Your task to perform on an android device: Show me productivity apps on the Play Store Image 0: 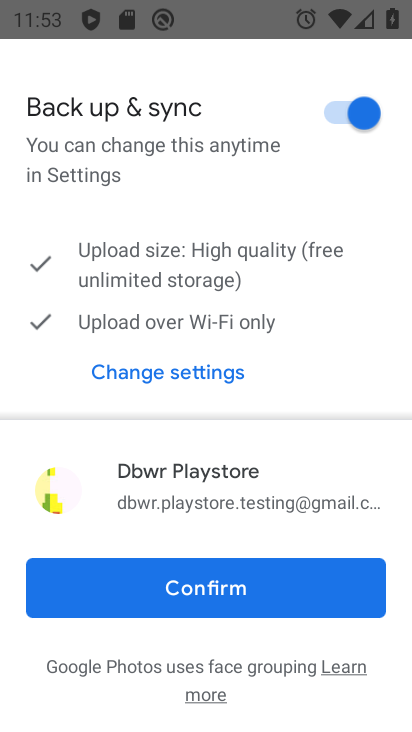
Step 0: press home button
Your task to perform on an android device: Show me productivity apps on the Play Store Image 1: 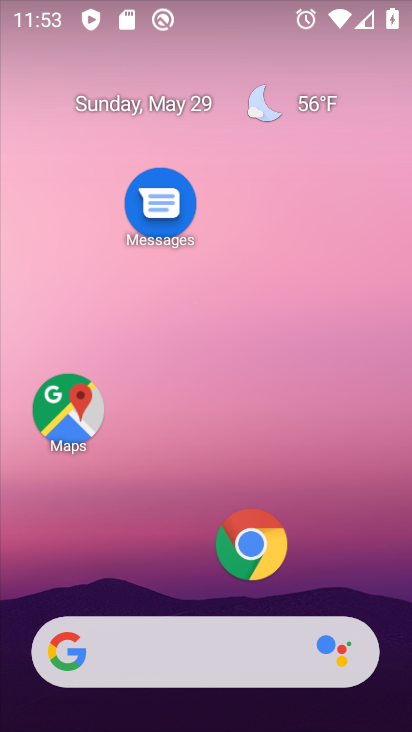
Step 1: drag from (196, 598) to (222, 106)
Your task to perform on an android device: Show me productivity apps on the Play Store Image 2: 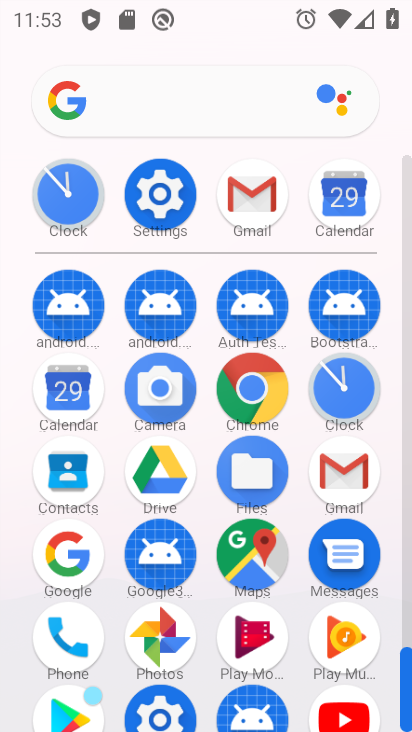
Step 2: drag from (192, 606) to (198, 170)
Your task to perform on an android device: Show me productivity apps on the Play Store Image 3: 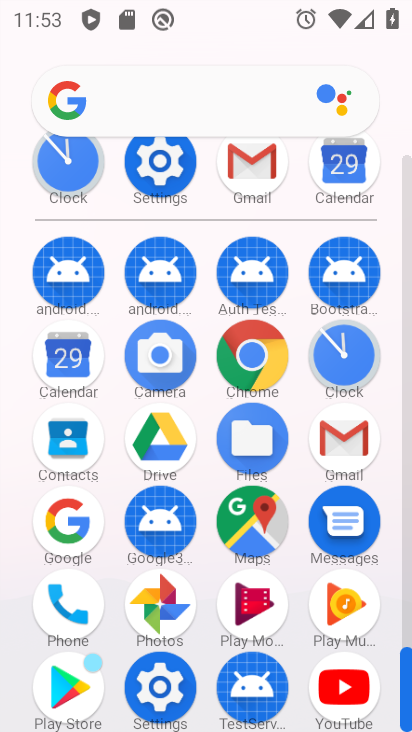
Step 3: click (75, 681)
Your task to perform on an android device: Show me productivity apps on the Play Store Image 4: 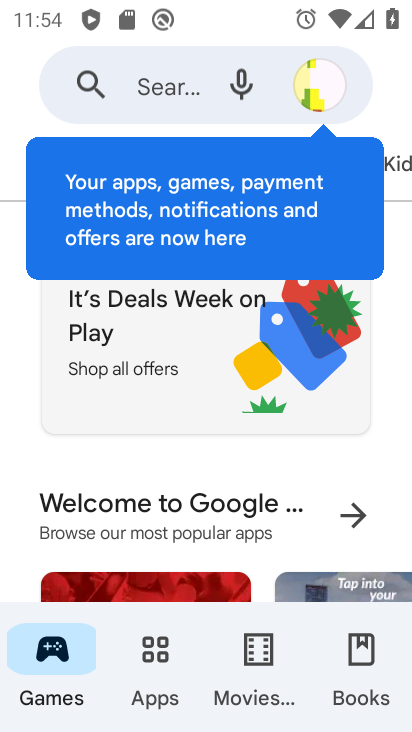
Step 4: click (148, 646)
Your task to perform on an android device: Show me productivity apps on the Play Store Image 5: 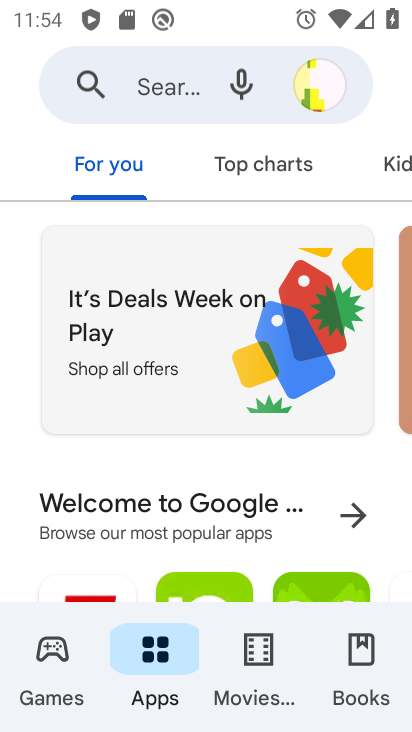
Step 5: click (390, 156)
Your task to perform on an android device: Show me productivity apps on the Play Store Image 6: 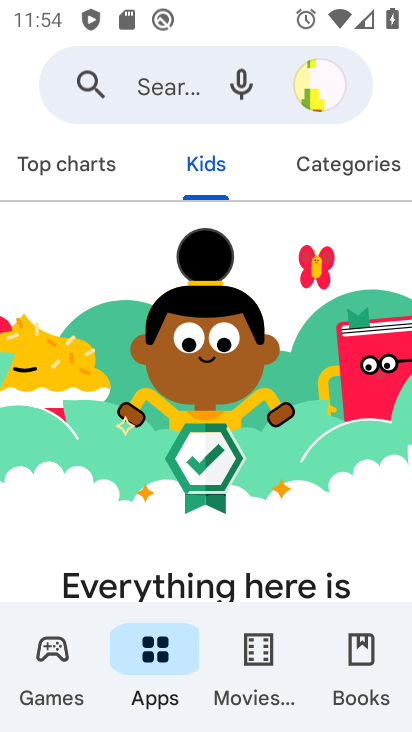
Step 6: click (355, 169)
Your task to perform on an android device: Show me productivity apps on the Play Store Image 7: 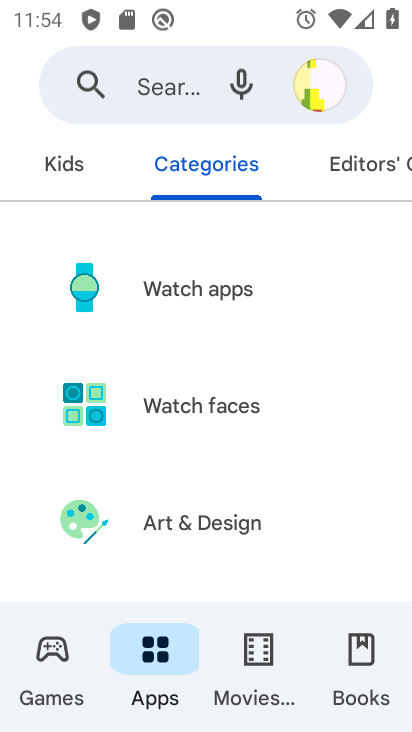
Step 7: drag from (211, 542) to (233, 136)
Your task to perform on an android device: Show me productivity apps on the Play Store Image 8: 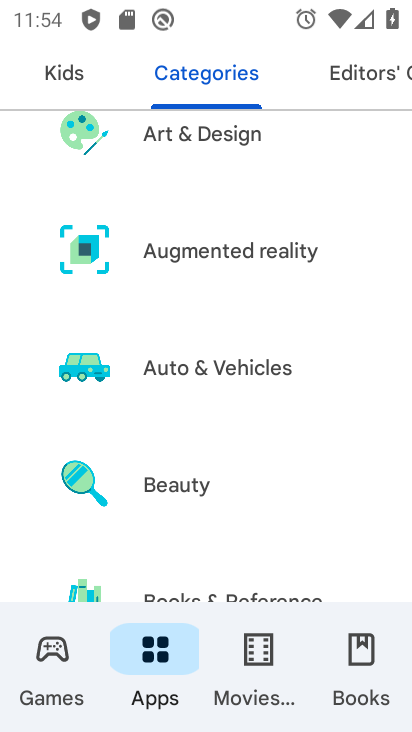
Step 8: drag from (247, 570) to (248, 118)
Your task to perform on an android device: Show me productivity apps on the Play Store Image 9: 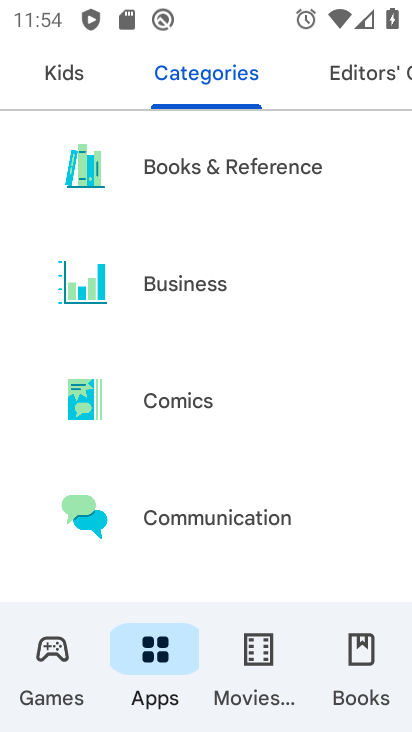
Step 9: drag from (225, 476) to (237, 77)
Your task to perform on an android device: Show me productivity apps on the Play Store Image 10: 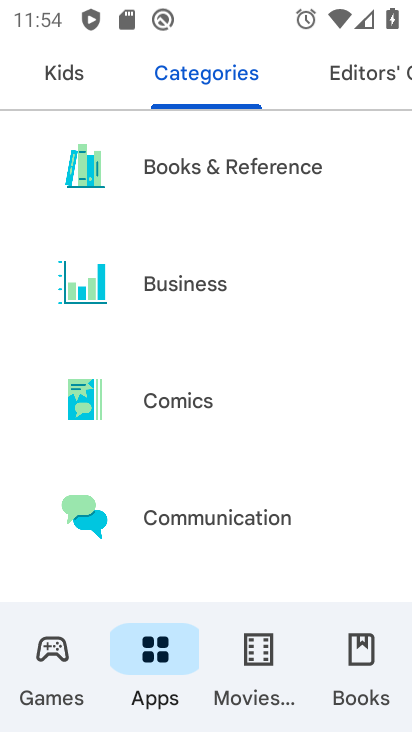
Step 10: drag from (203, 563) to (207, 49)
Your task to perform on an android device: Show me productivity apps on the Play Store Image 11: 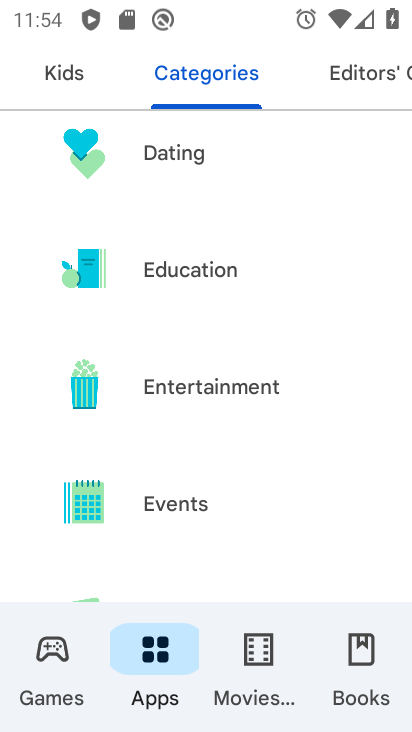
Step 11: drag from (132, 542) to (147, 72)
Your task to perform on an android device: Show me productivity apps on the Play Store Image 12: 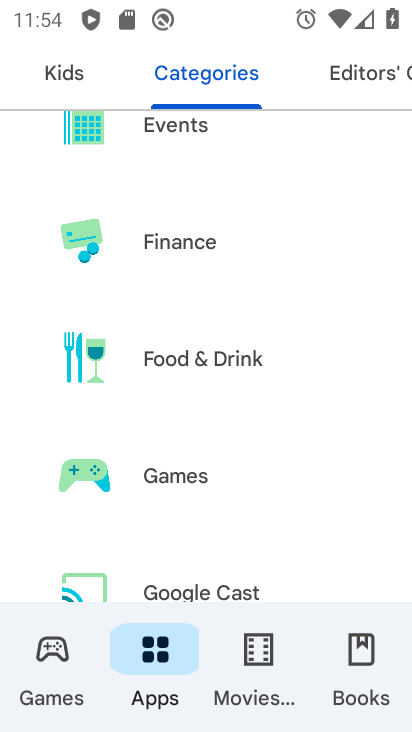
Step 12: drag from (146, 550) to (133, 98)
Your task to perform on an android device: Show me productivity apps on the Play Store Image 13: 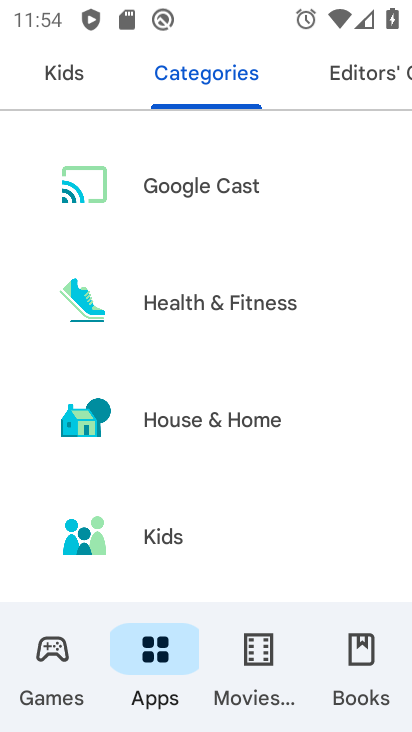
Step 13: drag from (164, 574) to (185, 49)
Your task to perform on an android device: Show me productivity apps on the Play Store Image 14: 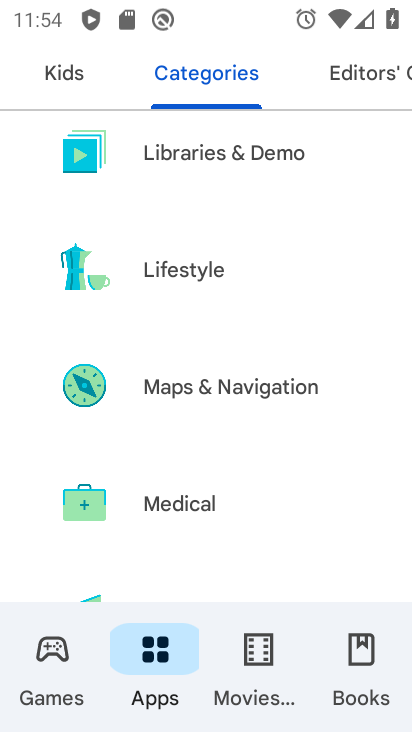
Step 14: drag from (187, 559) to (207, 90)
Your task to perform on an android device: Show me productivity apps on the Play Store Image 15: 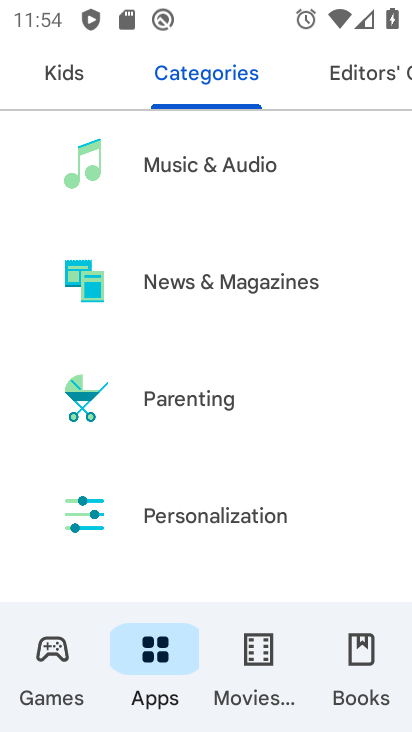
Step 15: drag from (201, 546) to (192, 127)
Your task to perform on an android device: Show me productivity apps on the Play Store Image 16: 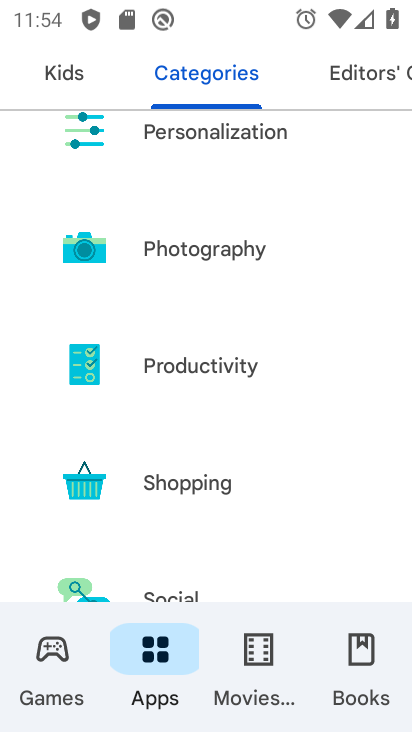
Step 16: click (121, 360)
Your task to perform on an android device: Show me productivity apps on the Play Store Image 17: 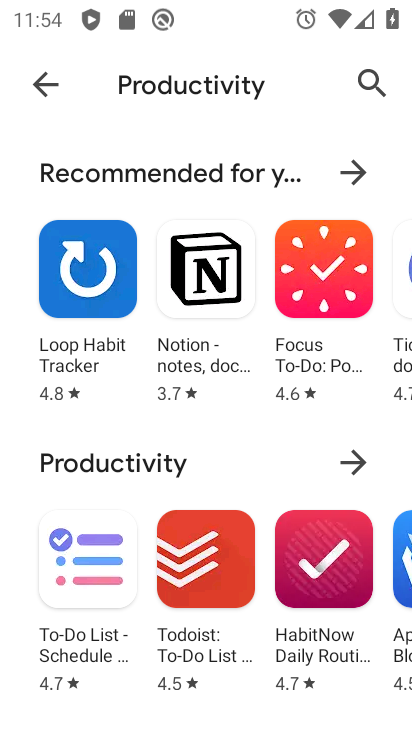
Step 17: task complete